Your task to perform on an android device: Open Amazon Image 0: 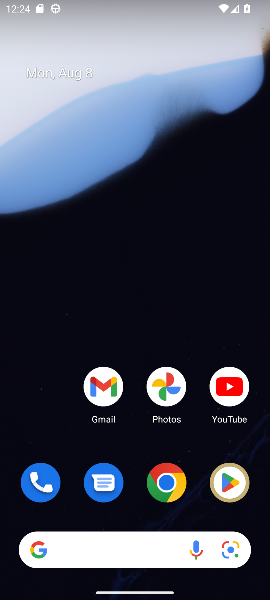
Step 0: drag from (170, 545) to (223, 19)
Your task to perform on an android device: Open Amazon Image 1: 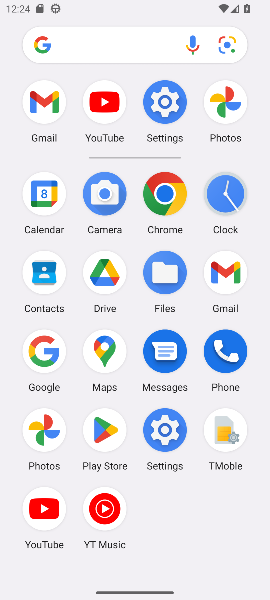
Step 1: click (163, 182)
Your task to perform on an android device: Open Amazon Image 2: 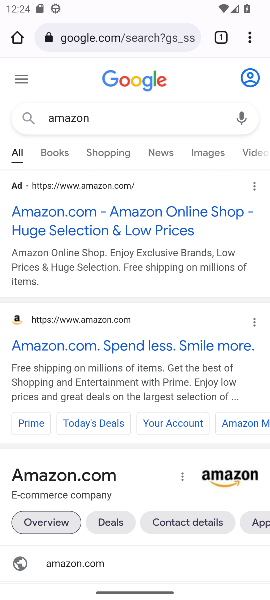
Step 2: click (253, 39)
Your task to perform on an android device: Open Amazon Image 3: 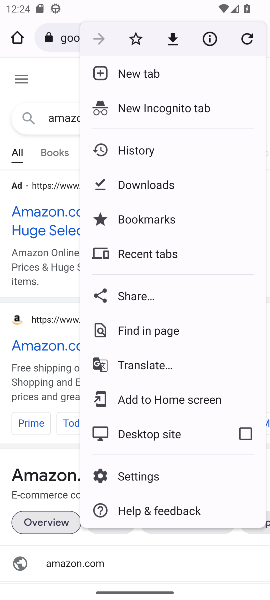
Step 3: click (159, 66)
Your task to perform on an android device: Open Amazon Image 4: 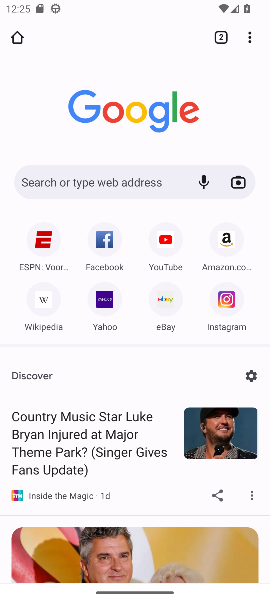
Step 4: click (233, 249)
Your task to perform on an android device: Open Amazon Image 5: 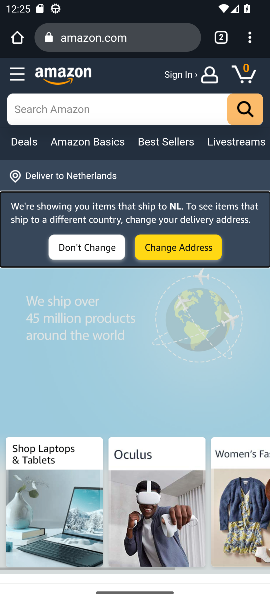
Step 5: click (251, 36)
Your task to perform on an android device: Open Amazon Image 6: 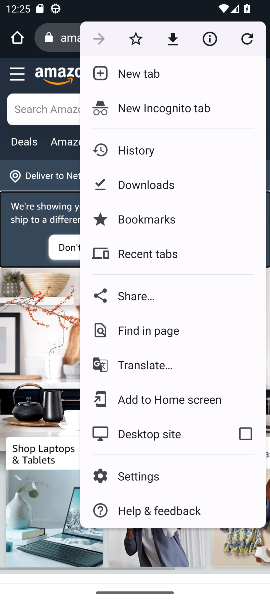
Step 6: click (4, 133)
Your task to perform on an android device: Open Amazon Image 7: 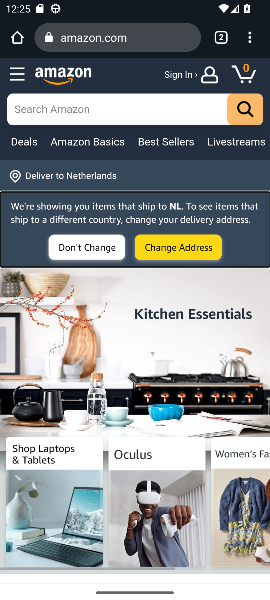
Step 7: task complete